Your task to perform on an android device: What's the weather going to be this weekend? Image 0: 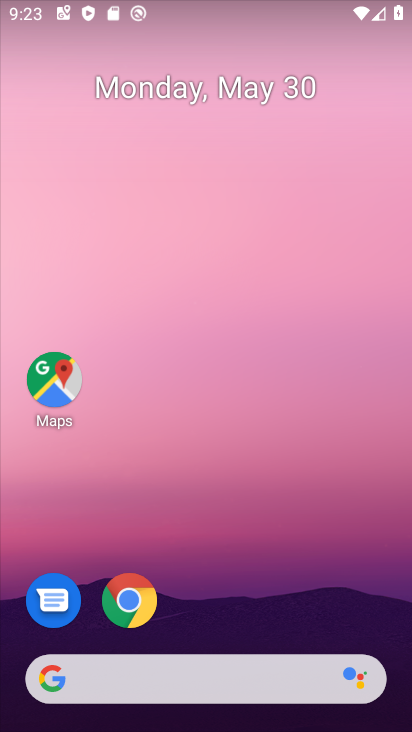
Step 0: click (62, 688)
Your task to perform on an android device: What's the weather going to be this weekend? Image 1: 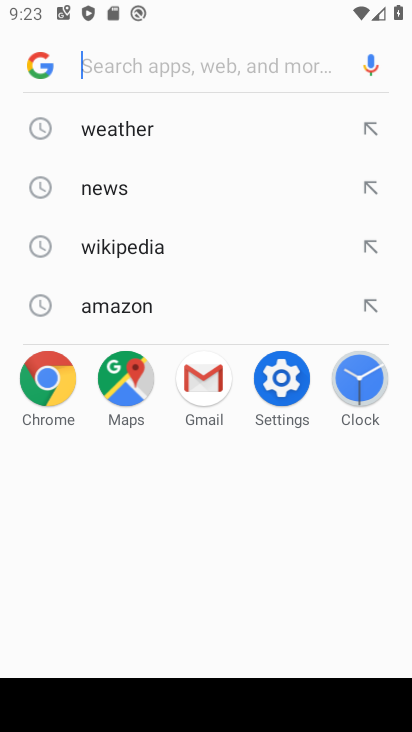
Step 1: type "weather this weekend"
Your task to perform on an android device: What's the weather going to be this weekend? Image 2: 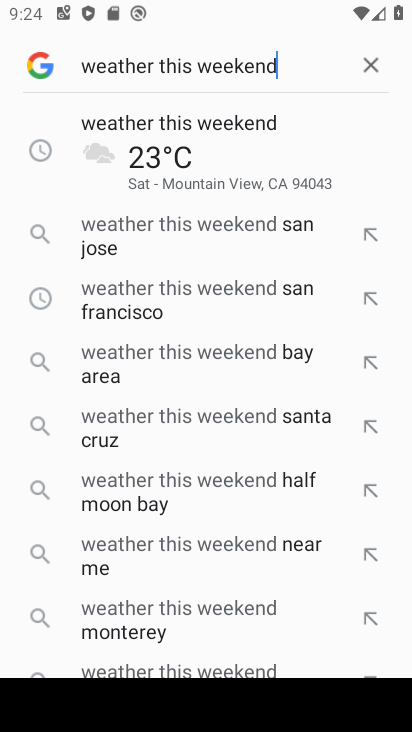
Step 2: click (181, 127)
Your task to perform on an android device: What's the weather going to be this weekend? Image 3: 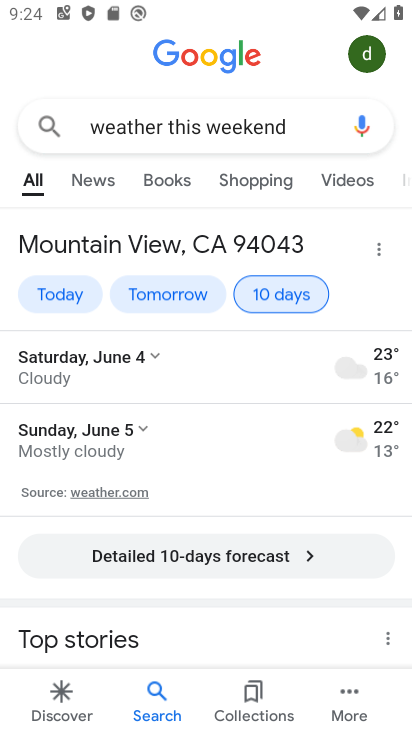
Step 3: task complete